Your task to perform on an android device: delete a single message in the gmail app Image 0: 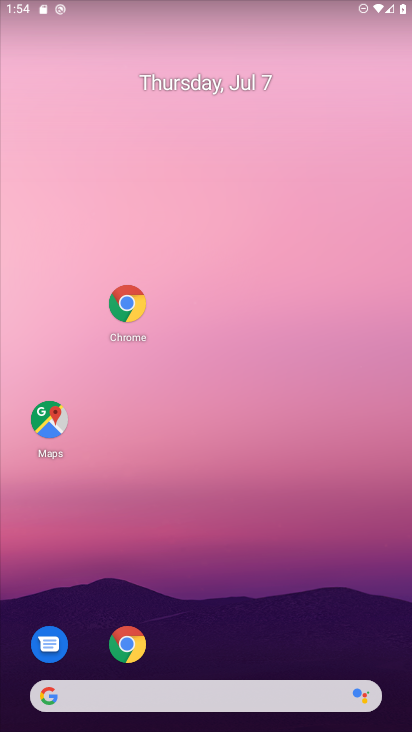
Step 0: drag from (258, 624) to (268, 174)
Your task to perform on an android device: delete a single message in the gmail app Image 1: 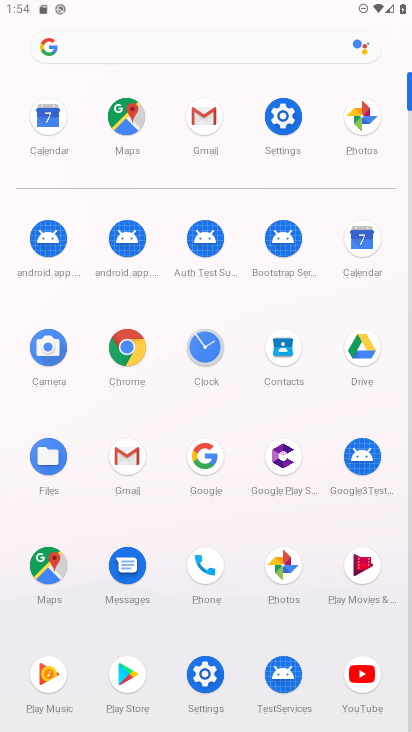
Step 1: click (137, 466)
Your task to perform on an android device: delete a single message in the gmail app Image 2: 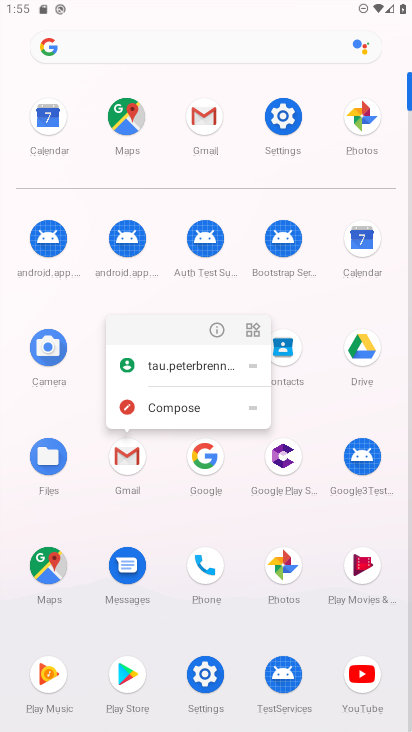
Step 2: click (135, 469)
Your task to perform on an android device: delete a single message in the gmail app Image 3: 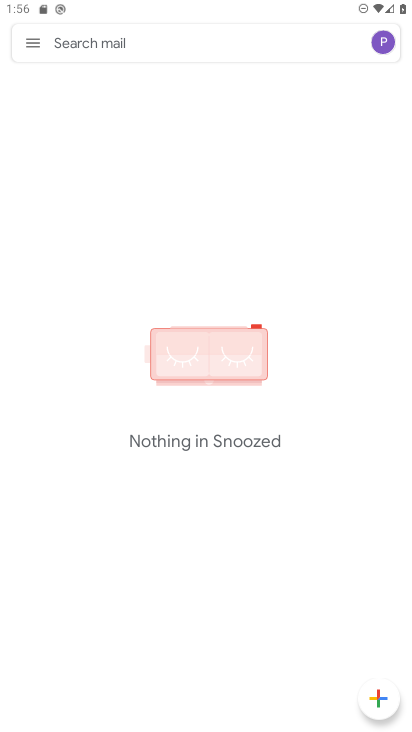
Step 3: task complete